Your task to perform on an android device: turn off picture-in-picture Image 0: 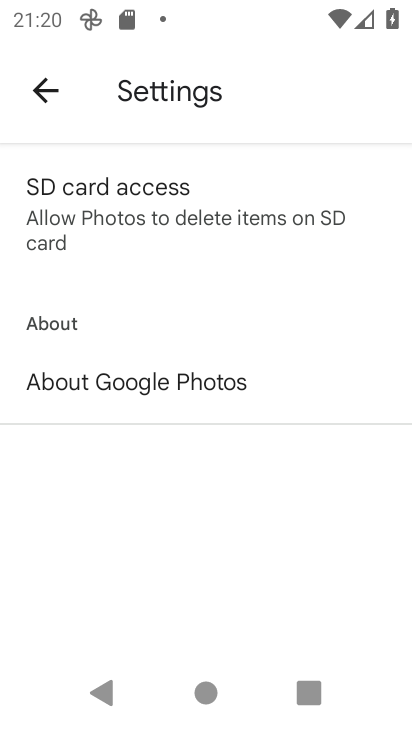
Step 0: click (47, 94)
Your task to perform on an android device: turn off picture-in-picture Image 1: 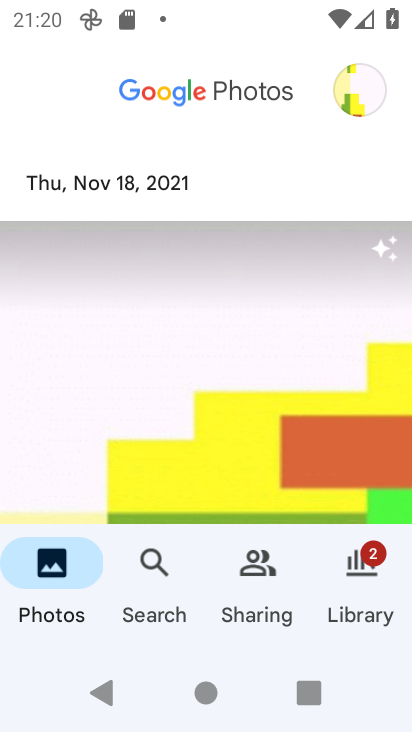
Step 1: press home button
Your task to perform on an android device: turn off picture-in-picture Image 2: 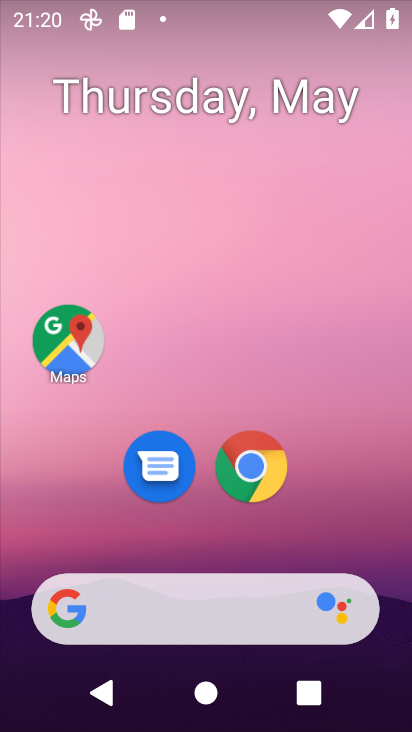
Step 2: drag from (363, 480) to (361, 72)
Your task to perform on an android device: turn off picture-in-picture Image 3: 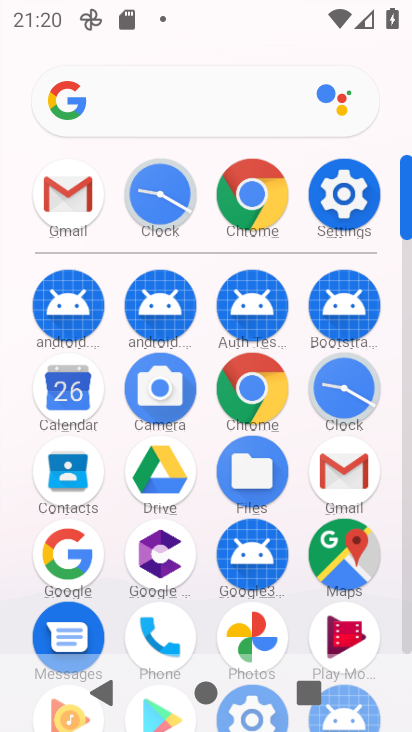
Step 3: click (336, 201)
Your task to perform on an android device: turn off picture-in-picture Image 4: 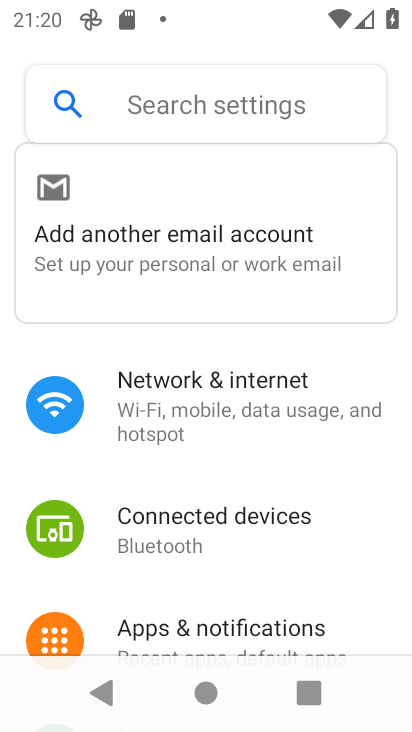
Step 4: task complete